Your task to perform on an android device: What's the weather? Image 0: 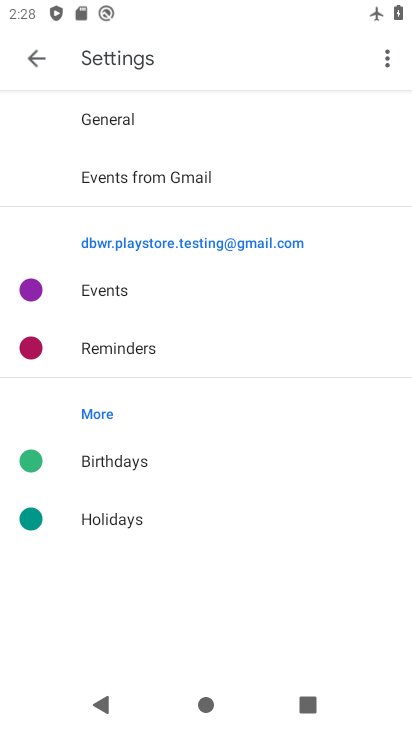
Step 0: press home button
Your task to perform on an android device: What's the weather? Image 1: 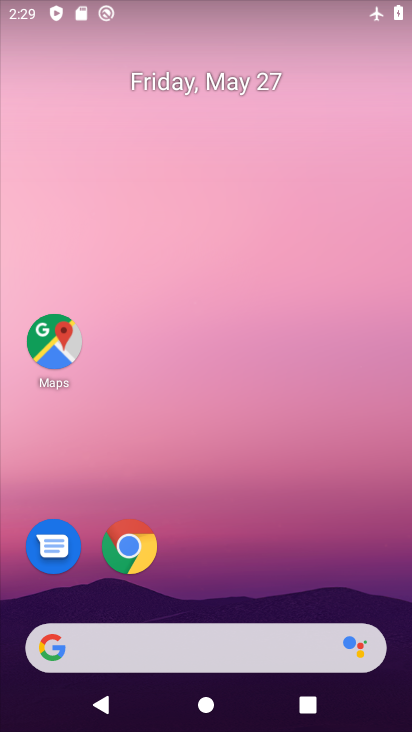
Step 1: click (134, 544)
Your task to perform on an android device: What's the weather? Image 2: 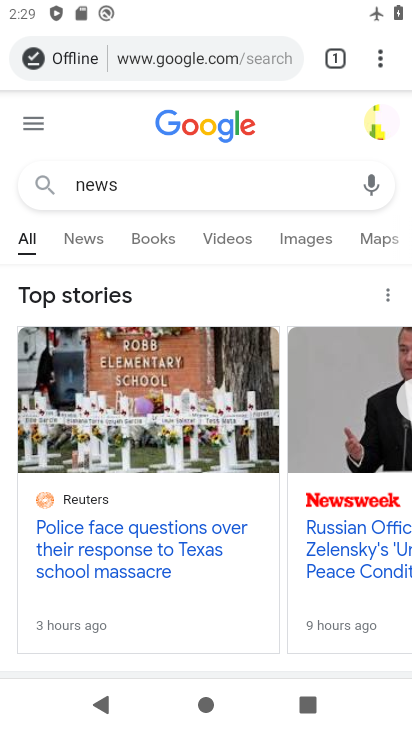
Step 2: click (114, 52)
Your task to perform on an android device: What's the weather? Image 3: 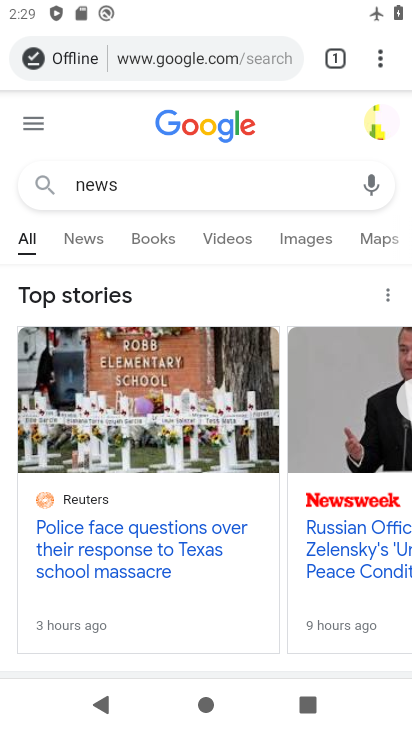
Step 3: click (157, 64)
Your task to perform on an android device: What's the weather? Image 4: 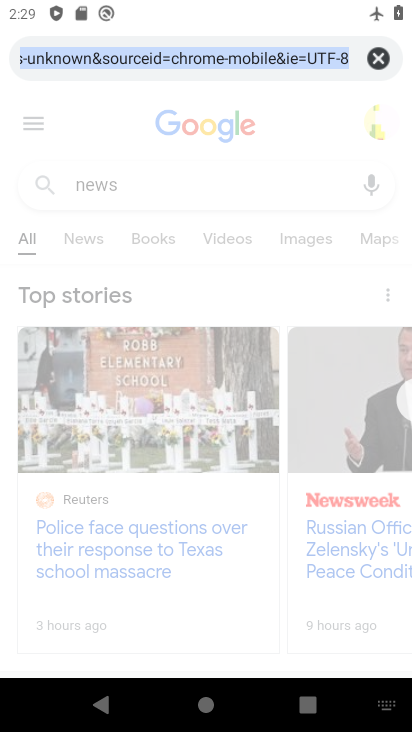
Step 4: type "weather"
Your task to perform on an android device: What's the weather? Image 5: 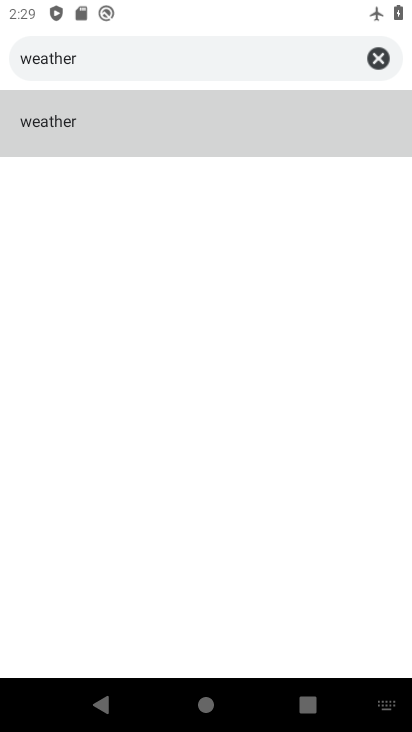
Step 5: click (279, 139)
Your task to perform on an android device: What's the weather? Image 6: 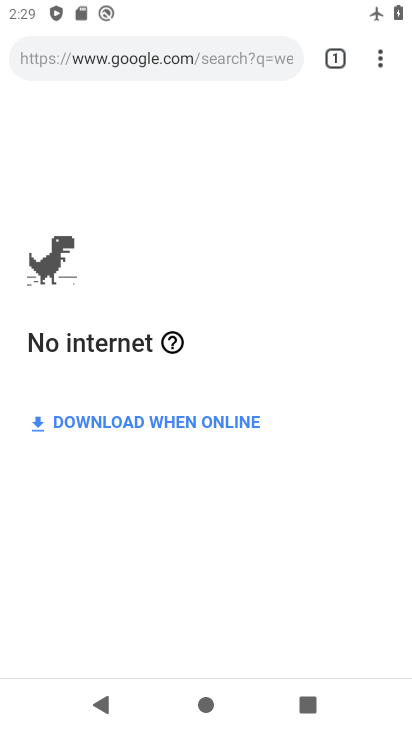
Step 6: task complete